Your task to perform on an android device: change the clock display to digital Image 0: 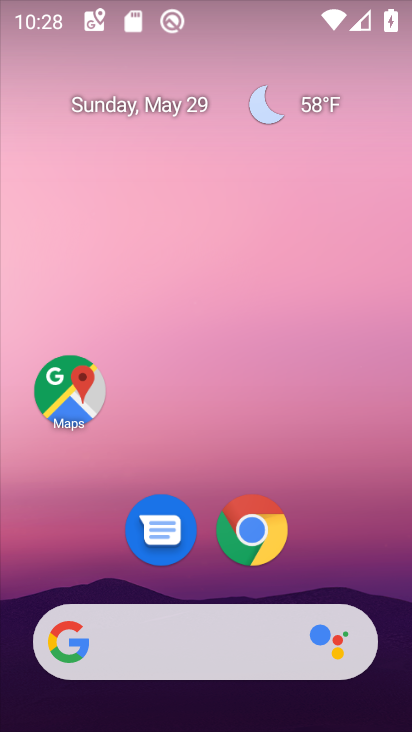
Step 0: drag from (204, 617) to (193, 249)
Your task to perform on an android device: change the clock display to digital Image 1: 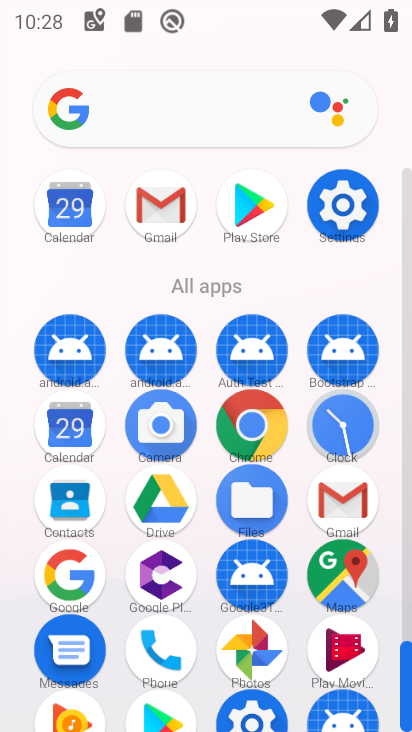
Step 1: click (334, 434)
Your task to perform on an android device: change the clock display to digital Image 2: 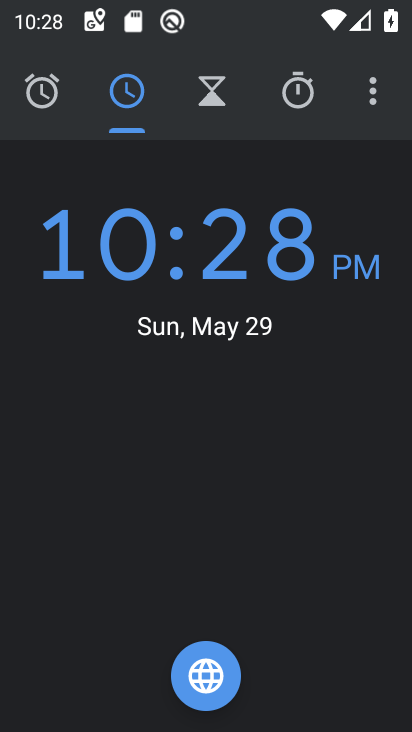
Step 2: click (365, 97)
Your task to perform on an android device: change the clock display to digital Image 3: 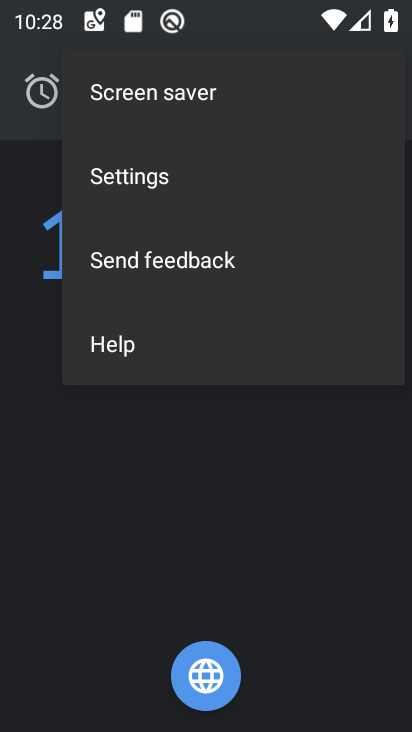
Step 3: click (186, 177)
Your task to perform on an android device: change the clock display to digital Image 4: 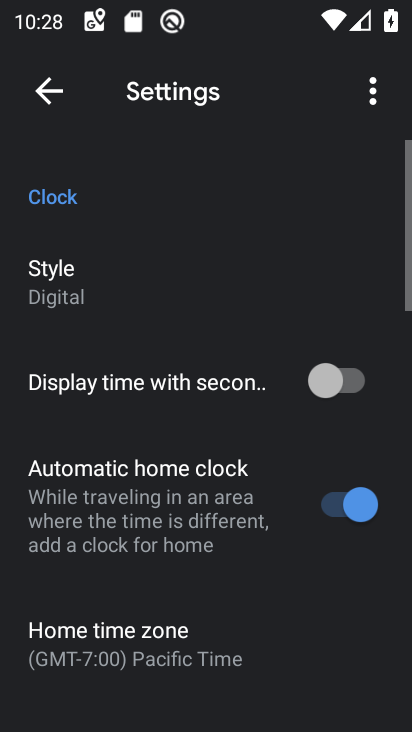
Step 4: click (84, 271)
Your task to perform on an android device: change the clock display to digital Image 5: 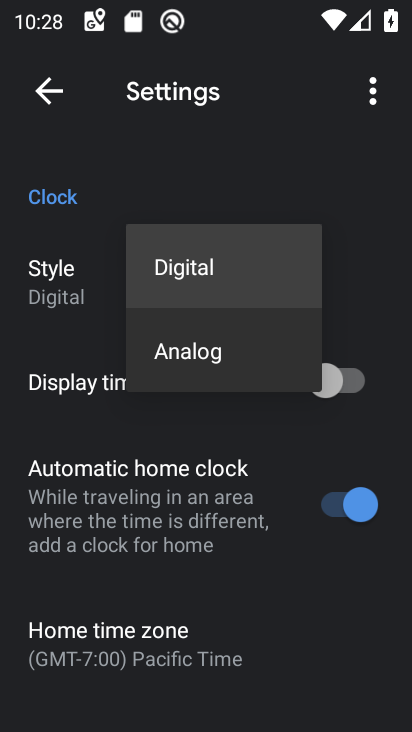
Step 5: click (217, 294)
Your task to perform on an android device: change the clock display to digital Image 6: 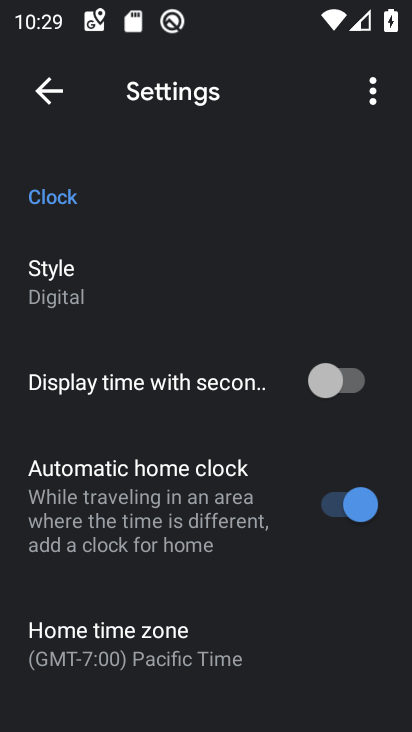
Step 6: task complete